Your task to perform on an android device: find which apps use the phone's location Image 0: 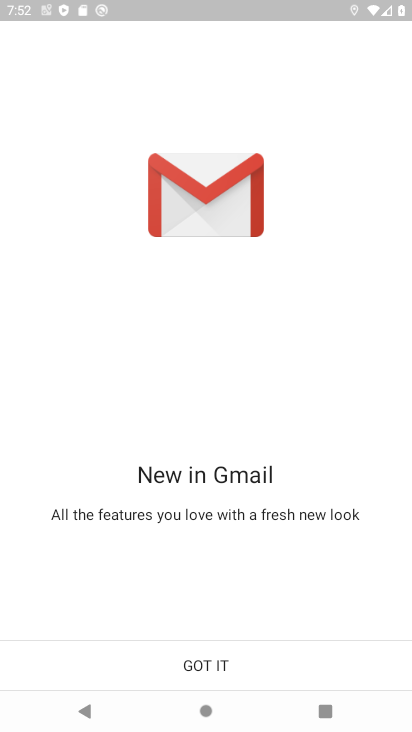
Step 0: press home button
Your task to perform on an android device: find which apps use the phone's location Image 1: 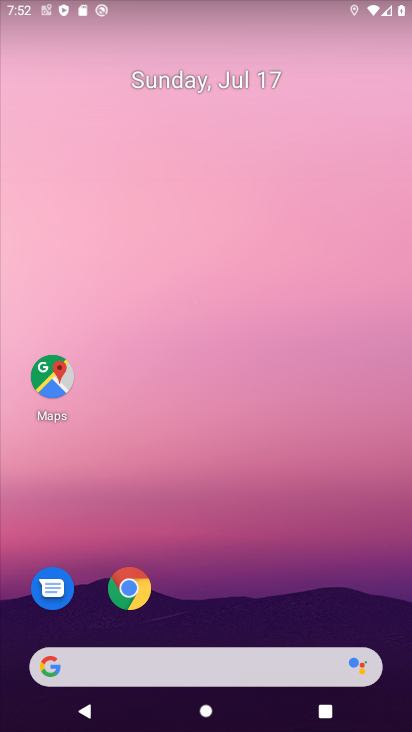
Step 1: drag from (230, 634) to (294, 189)
Your task to perform on an android device: find which apps use the phone's location Image 2: 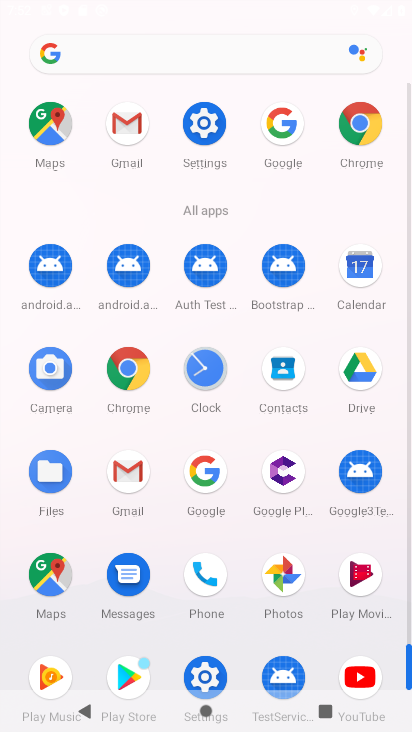
Step 2: click (211, 132)
Your task to perform on an android device: find which apps use the phone's location Image 3: 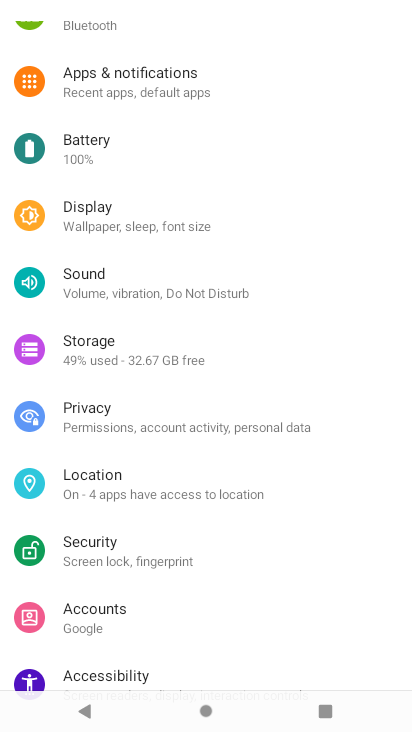
Step 3: click (132, 480)
Your task to perform on an android device: find which apps use the phone's location Image 4: 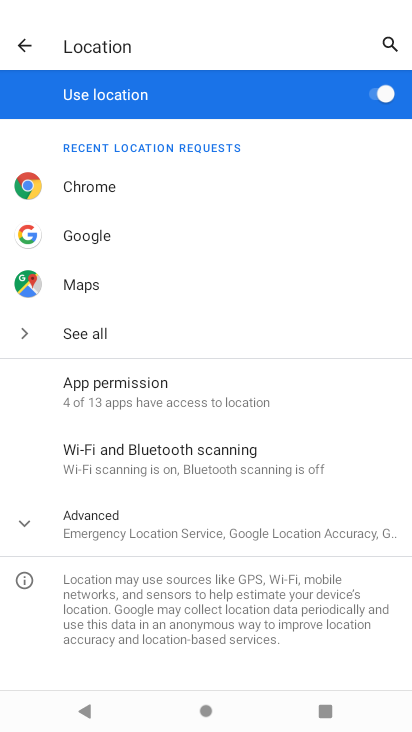
Step 4: click (212, 396)
Your task to perform on an android device: find which apps use the phone's location Image 5: 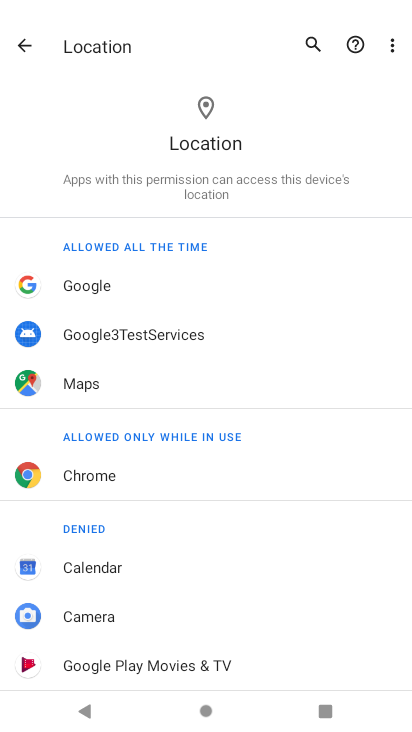
Step 5: task complete